Your task to perform on an android device: Open Youtube and go to the subscriptions tab Image 0: 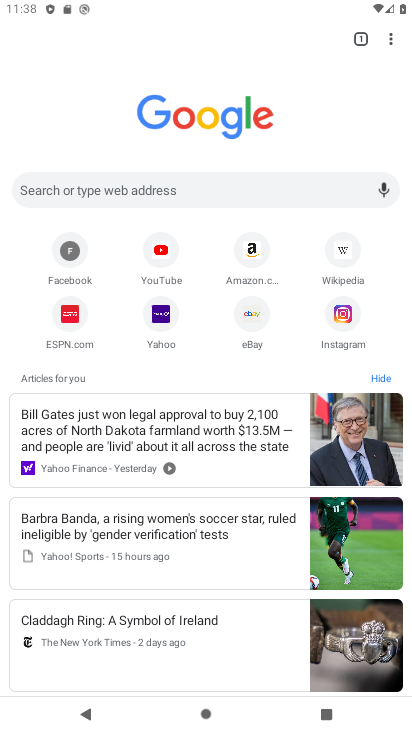
Step 0: press home button
Your task to perform on an android device: Open Youtube and go to the subscriptions tab Image 1: 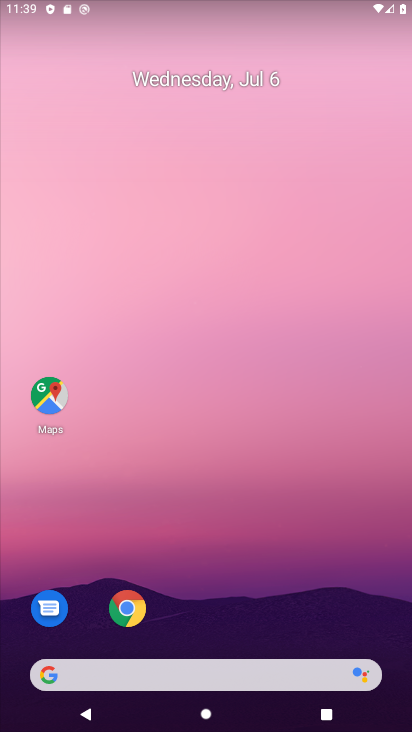
Step 1: drag from (277, 639) to (299, 243)
Your task to perform on an android device: Open Youtube and go to the subscriptions tab Image 2: 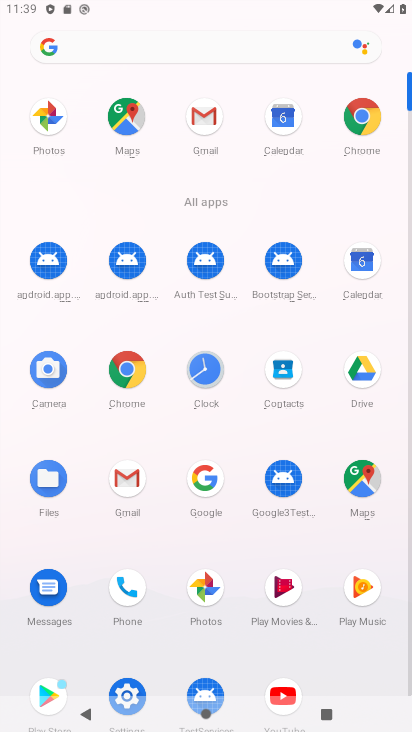
Step 2: click (273, 695)
Your task to perform on an android device: Open Youtube and go to the subscriptions tab Image 3: 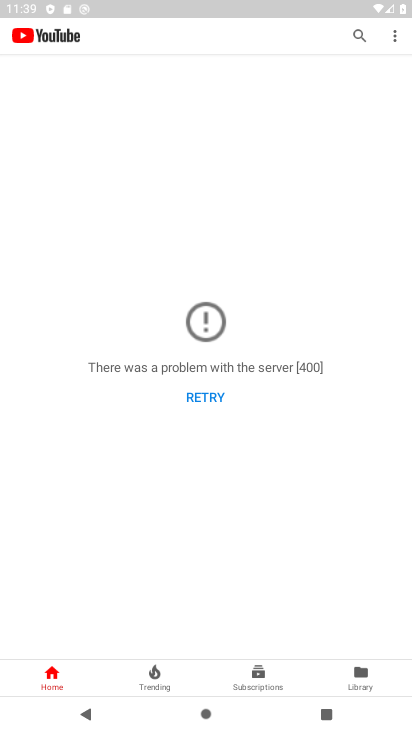
Step 3: click (260, 673)
Your task to perform on an android device: Open Youtube and go to the subscriptions tab Image 4: 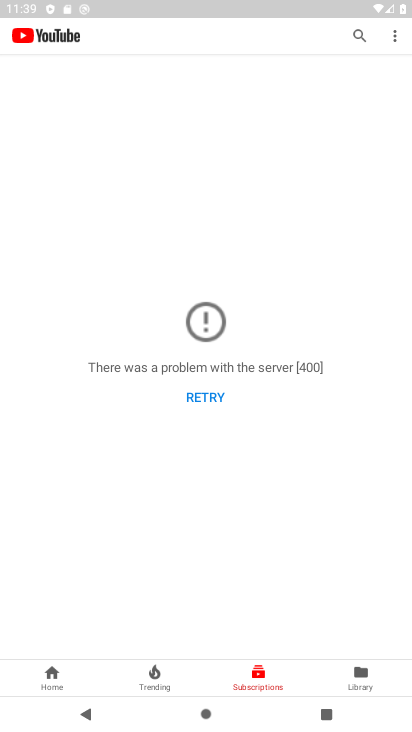
Step 4: task complete